Your task to perform on an android device: Open the phone app and click the voicemail tab. Image 0: 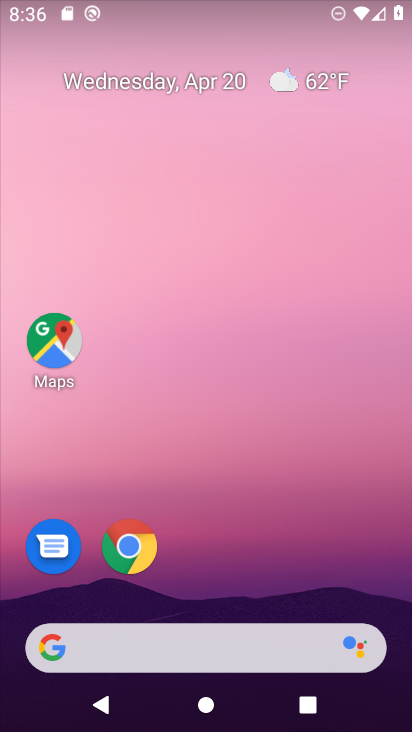
Step 0: drag from (323, 567) to (327, 103)
Your task to perform on an android device: Open the phone app and click the voicemail tab. Image 1: 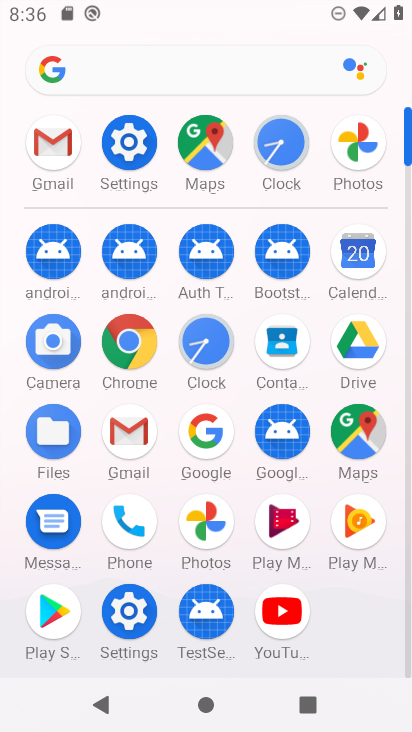
Step 1: click (124, 512)
Your task to perform on an android device: Open the phone app and click the voicemail tab. Image 2: 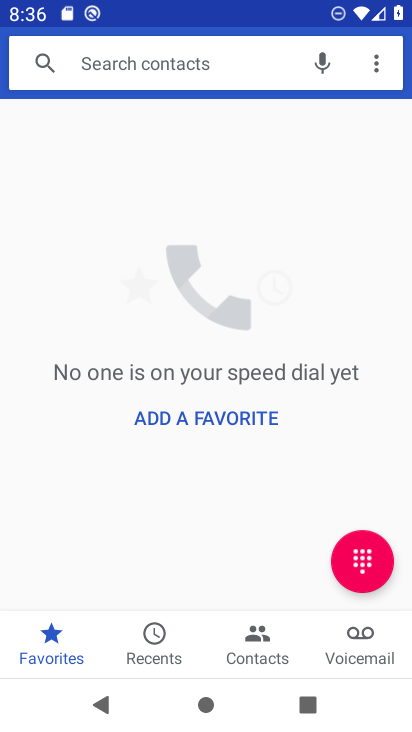
Step 2: click (352, 637)
Your task to perform on an android device: Open the phone app and click the voicemail tab. Image 3: 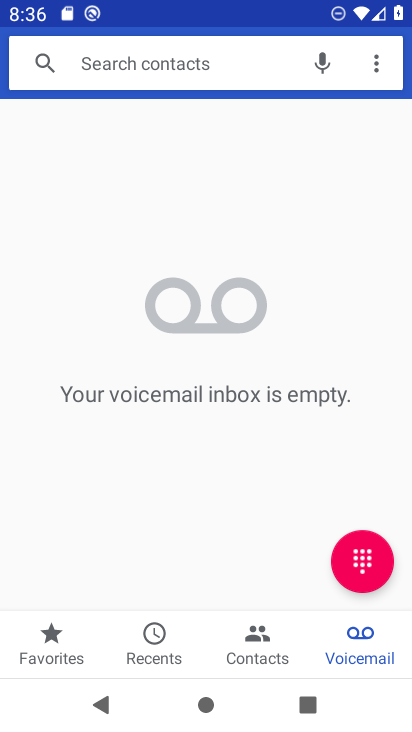
Step 3: task complete